Your task to perform on an android device: Go to Reddit.com Image 0: 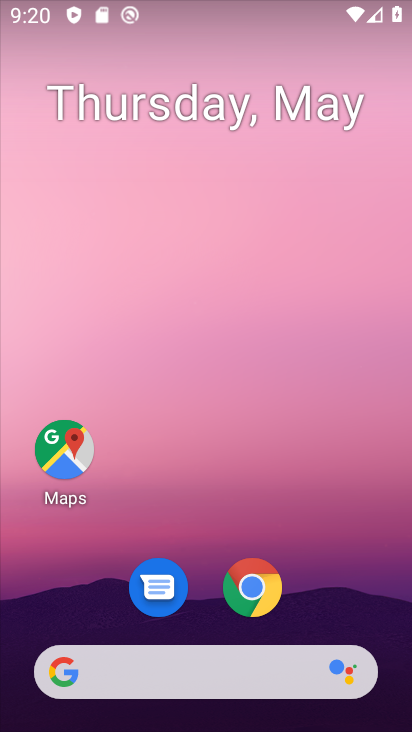
Step 0: click (255, 582)
Your task to perform on an android device: Go to Reddit.com Image 1: 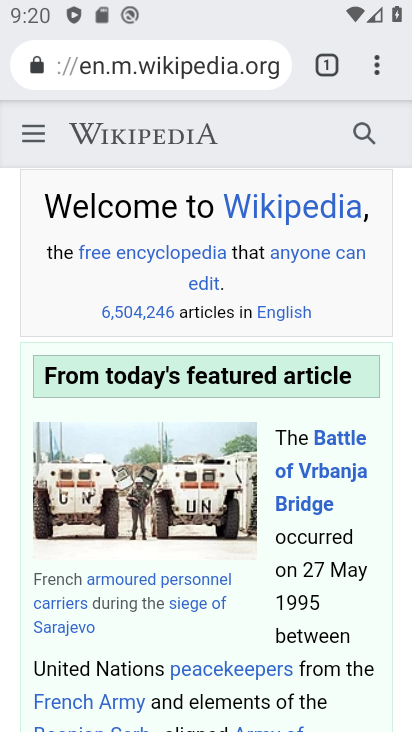
Step 1: click (102, 75)
Your task to perform on an android device: Go to Reddit.com Image 2: 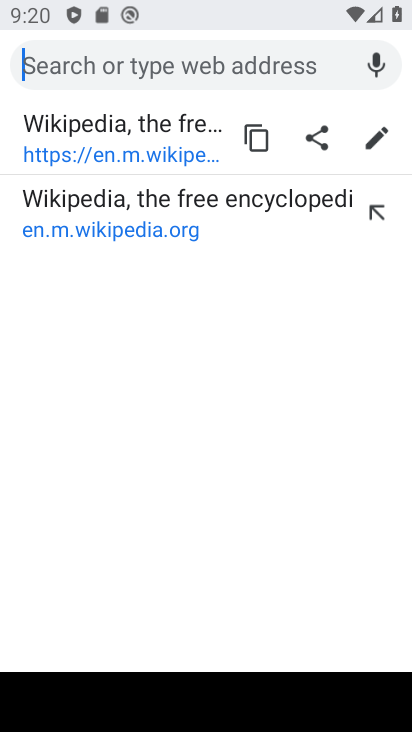
Step 2: type "reddit.com"
Your task to perform on an android device: Go to Reddit.com Image 3: 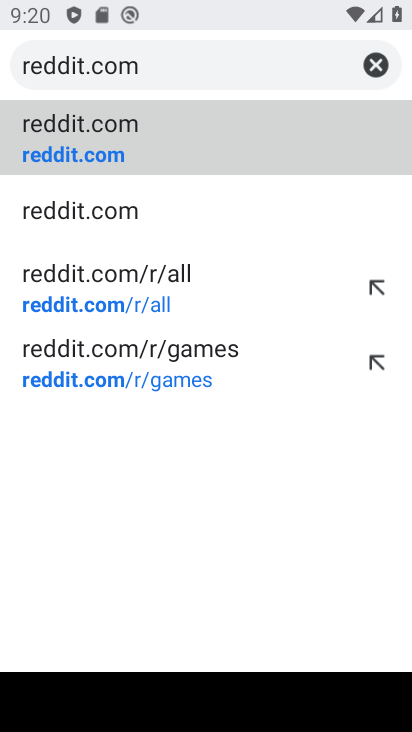
Step 3: click (87, 163)
Your task to perform on an android device: Go to Reddit.com Image 4: 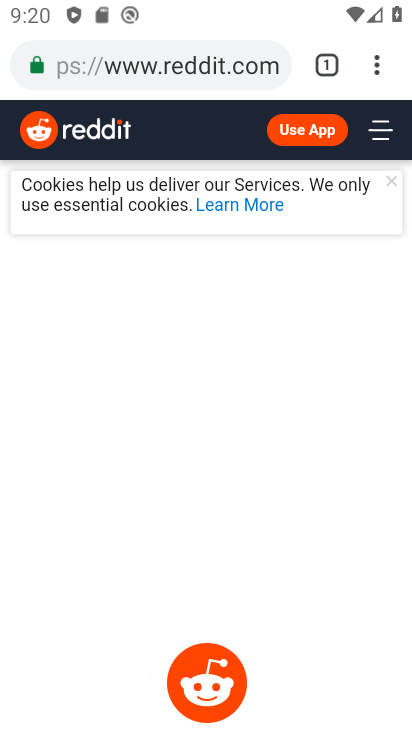
Step 4: task complete